Your task to perform on an android device: delete browsing data in the chrome app Image 0: 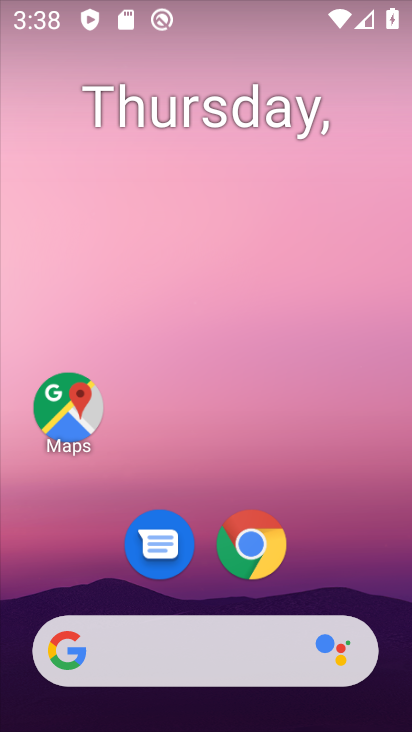
Step 0: click (253, 555)
Your task to perform on an android device: delete browsing data in the chrome app Image 1: 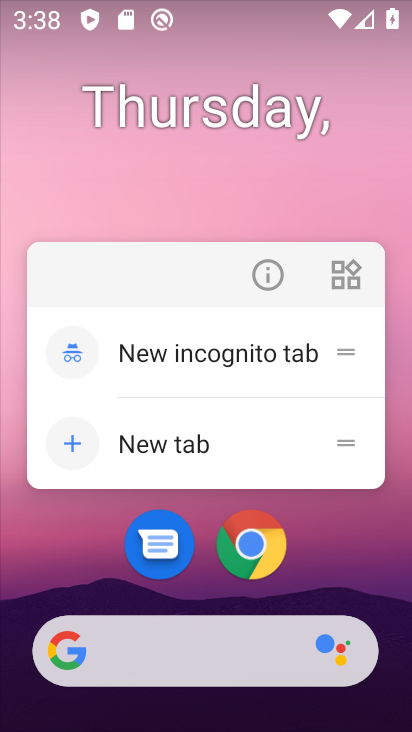
Step 1: click (258, 537)
Your task to perform on an android device: delete browsing data in the chrome app Image 2: 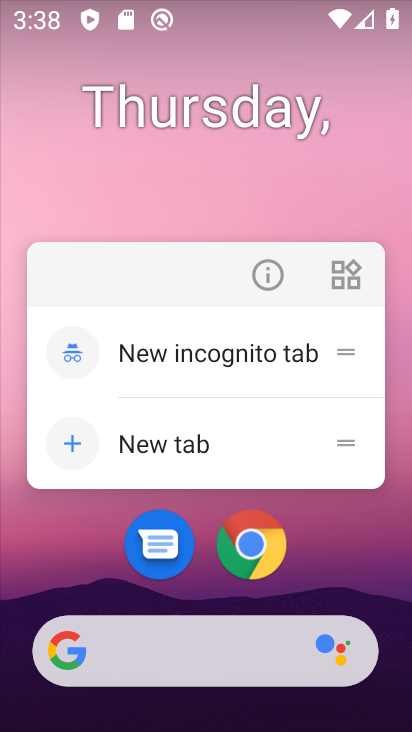
Step 2: click (271, 564)
Your task to perform on an android device: delete browsing data in the chrome app Image 3: 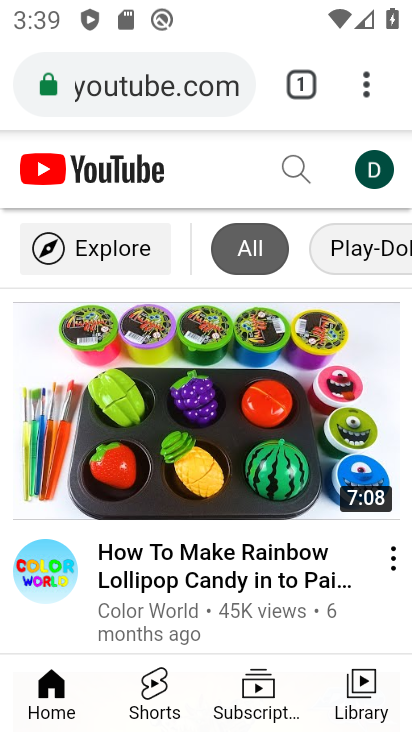
Step 3: click (360, 79)
Your task to perform on an android device: delete browsing data in the chrome app Image 4: 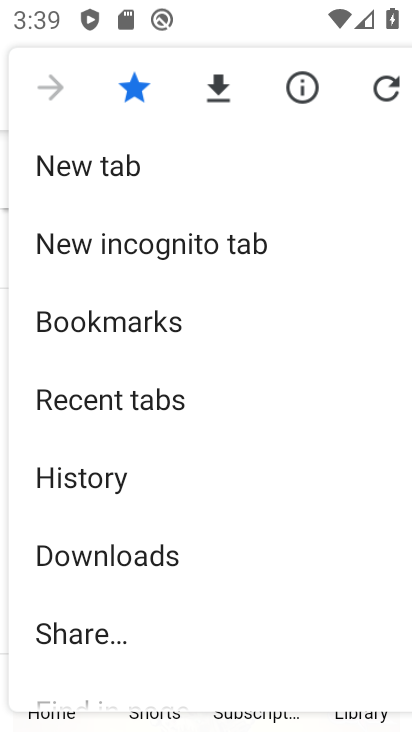
Step 4: drag from (124, 589) to (252, 92)
Your task to perform on an android device: delete browsing data in the chrome app Image 5: 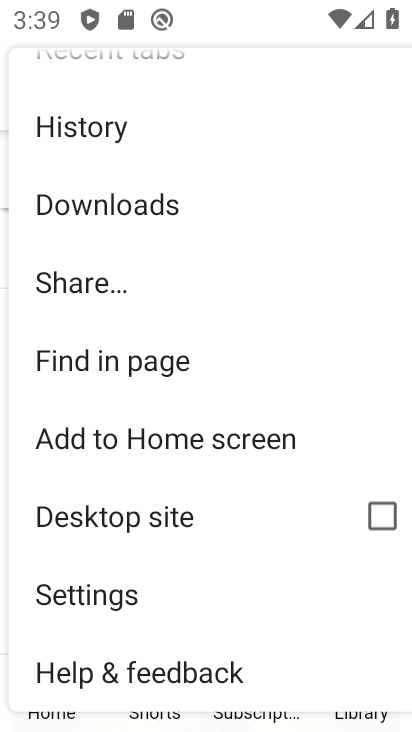
Step 5: click (180, 595)
Your task to perform on an android device: delete browsing data in the chrome app Image 6: 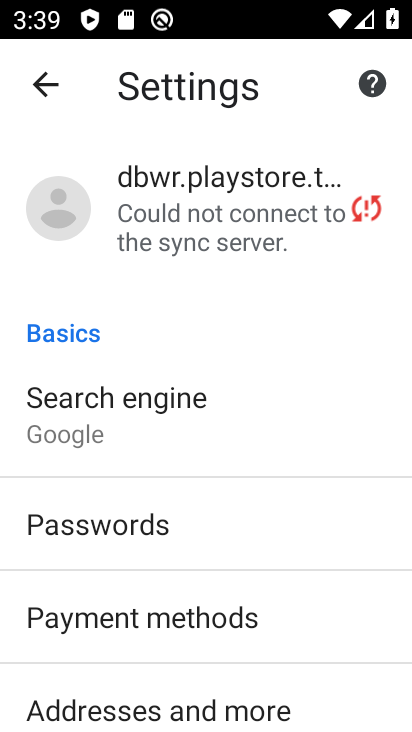
Step 6: click (55, 87)
Your task to perform on an android device: delete browsing data in the chrome app Image 7: 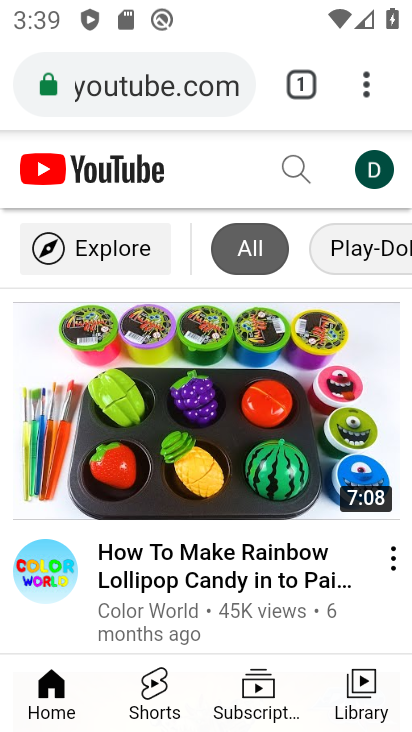
Step 7: click (364, 92)
Your task to perform on an android device: delete browsing data in the chrome app Image 8: 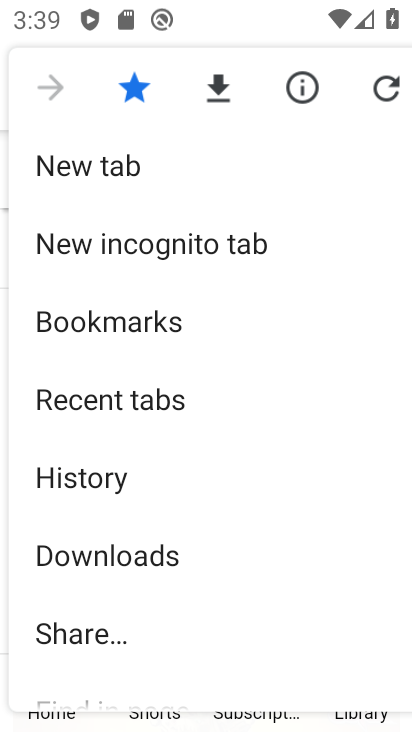
Step 8: drag from (86, 434) to (99, 232)
Your task to perform on an android device: delete browsing data in the chrome app Image 9: 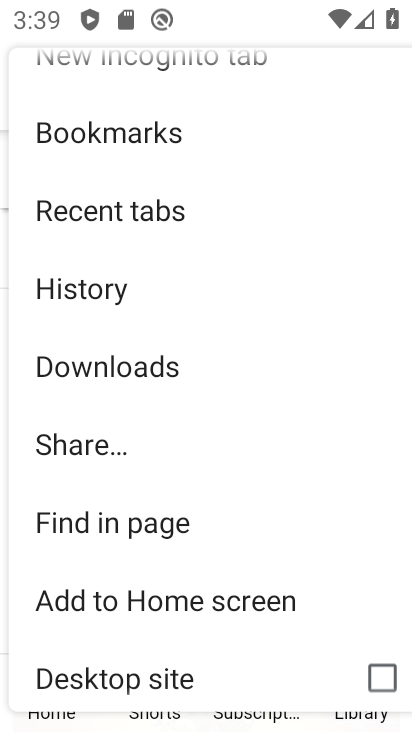
Step 9: click (103, 279)
Your task to perform on an android device: delete browsing data in the chrome app Image 10: 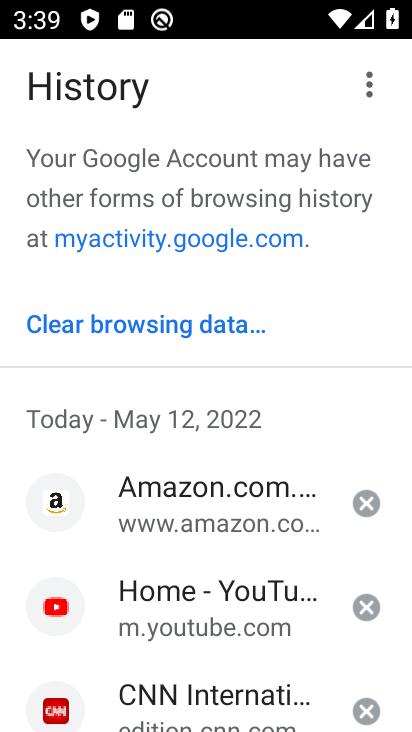
Step 10: click (157, 177)
Your task to perform on an android device: delete browsing data in the chrome app Image 11: 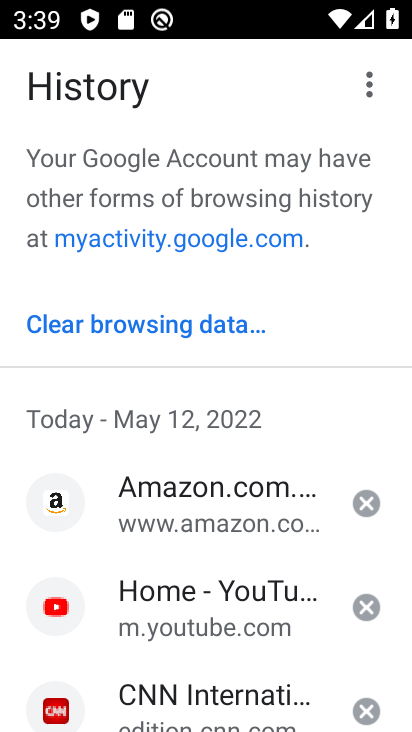
Step 11: click (134, 324)
Your task to perform on an android device: delete browsing data in the chrome app Image 12: 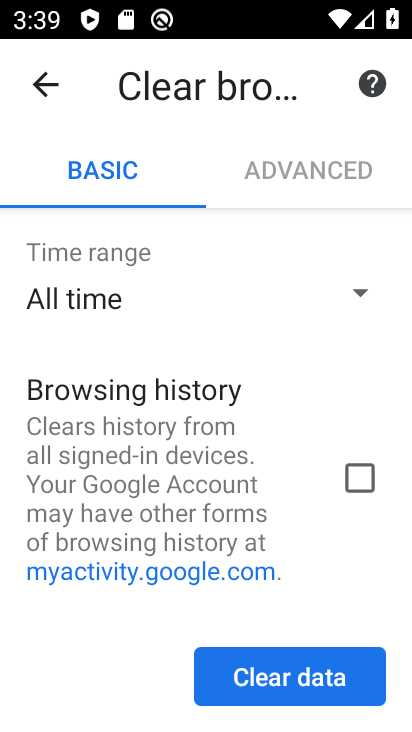
Step 12: click (248, 692)
Your task to perform on an android device: delete browsing data in the chrome app Image 13: 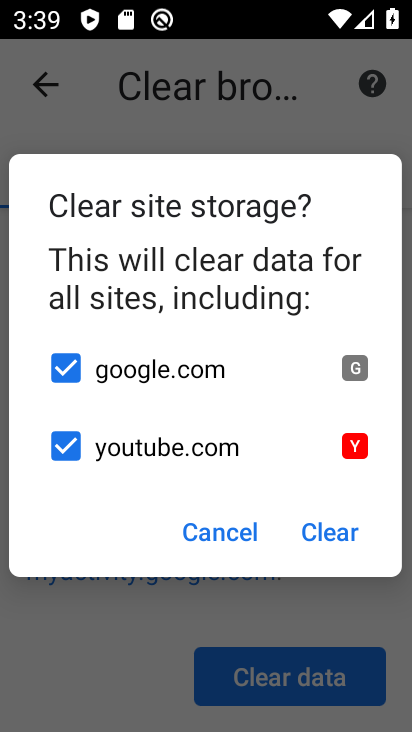
Step 13: click (343, 534)
Your task to perform on an android device: delete browsing data in the chrome app Image 14: 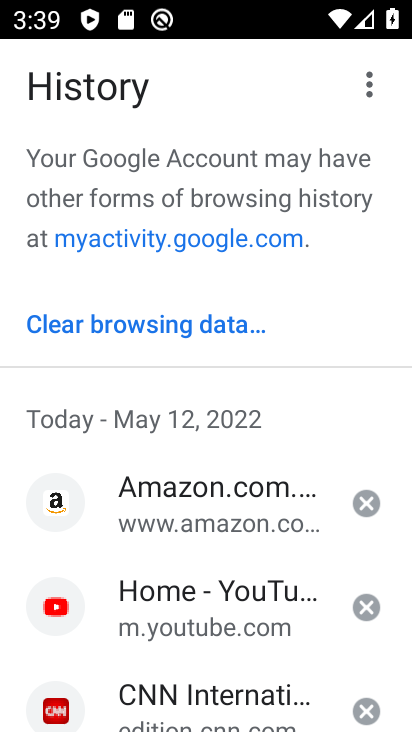
Step 14: task complete